Your task to perform on an android device: Open Google Maps Image 0: 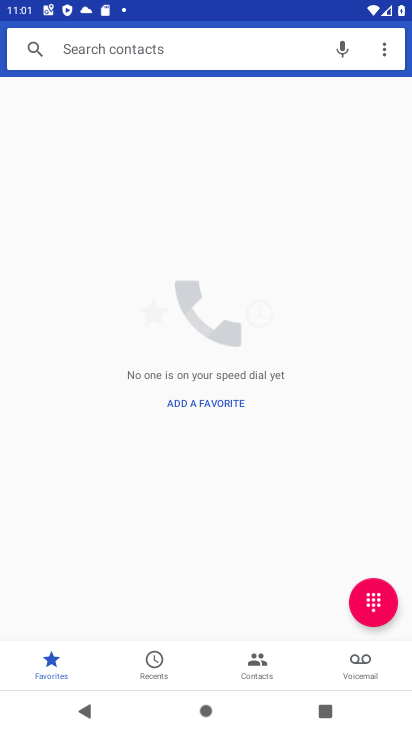
Step 0: press home button
Your task to perform on an android device: Open Google Maps Image 1: 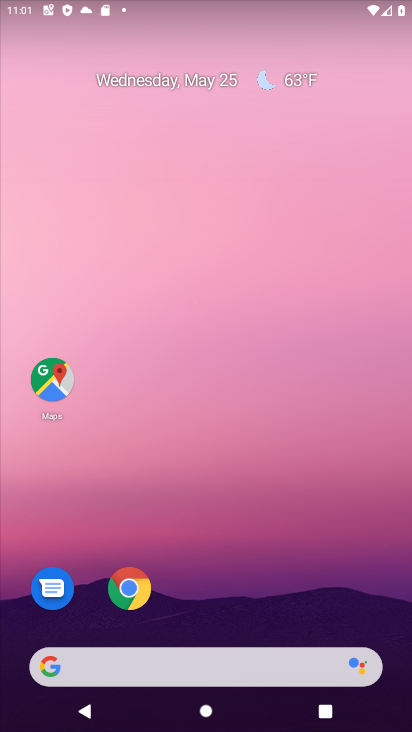
Step 1: click (52, 385)
Your task to perform on an android device: Open Google Maps Image 2: 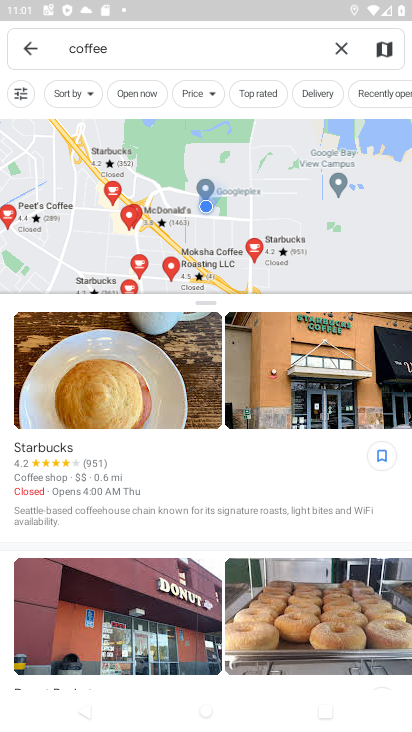
Step 2: task complete